Your task to perform on an android device: turn on translation in the chrome app Image 0: 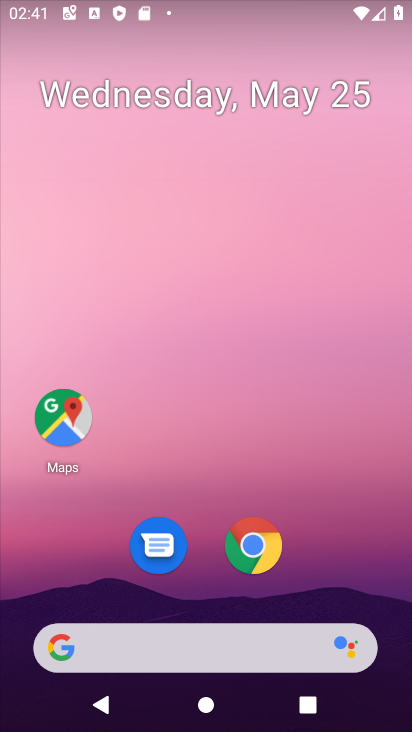
Step 0: click (269, 539)
Your task to perform on an android device: turn on translation in the chrome app Image 1: 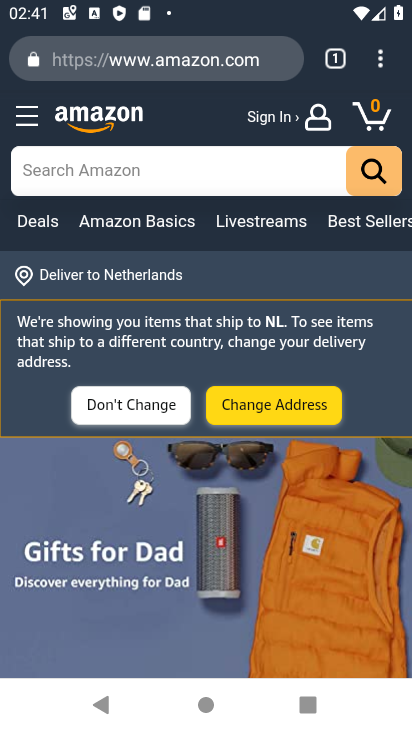
Step 1: click (383, 65)
Your task to perform on an android device: turn on translation in the chrome app Image 2: 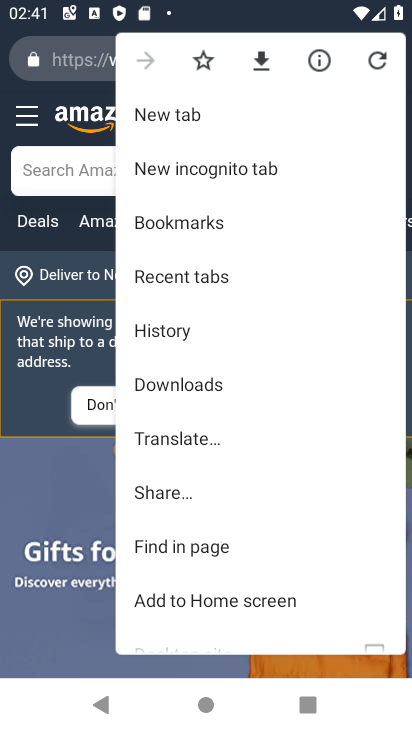
Step 2: drag from (228, 557) to (230, 298)
Your task to perform on an android device: turn on translation in the chrome app Image 3: 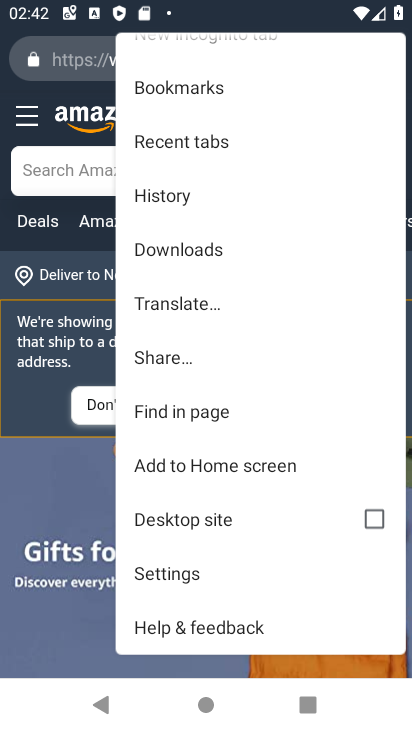
Step 3: click (195, 580)
Your task to perform on an android device: turn on translation in the chrome app Image 4: 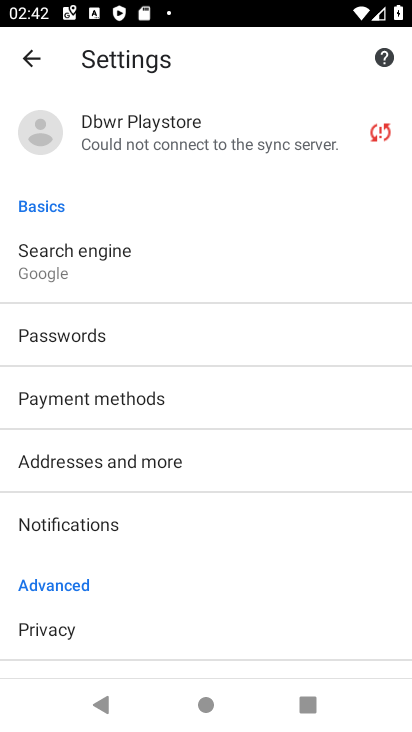
Step 4: drag from (186, 607) to (183, 345)
Your task to perform on an android device: turn on translation in the chrome app Image 5: 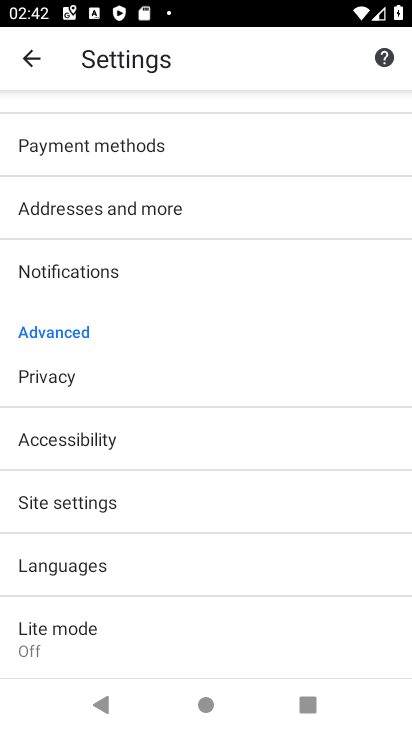
Step 5: click (234, 511)
Your task to perform on an android device: turn on translation in the chrome app Image 6: 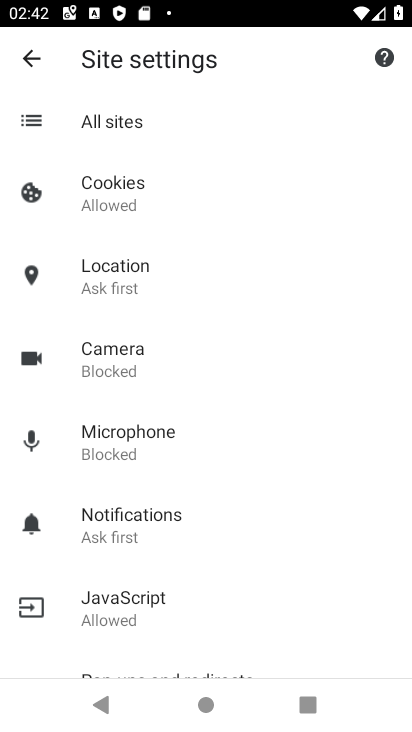
Step 6: task complete